Your task to perform on an android device: move an email to a new category in the gmail app Image 0: 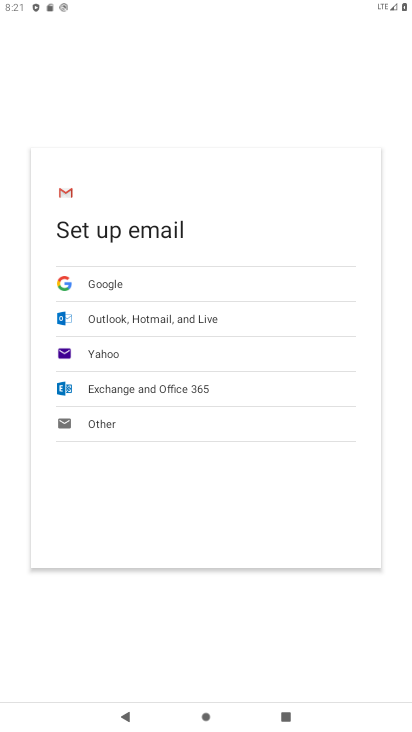
Step 0: press home button
Your task to perform on an android device: move an email to a new category in the gmail app Image 1: 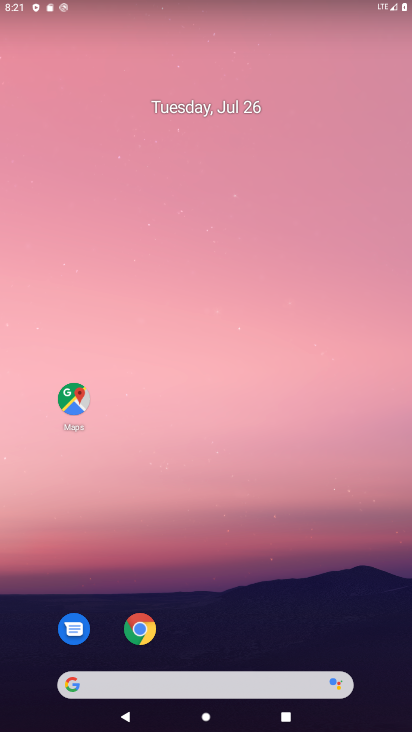
Step 1: drag from (216, 657) to (33, 133)
Your task to perform on an android device: move an email to a new category in the gmail app Image 2: 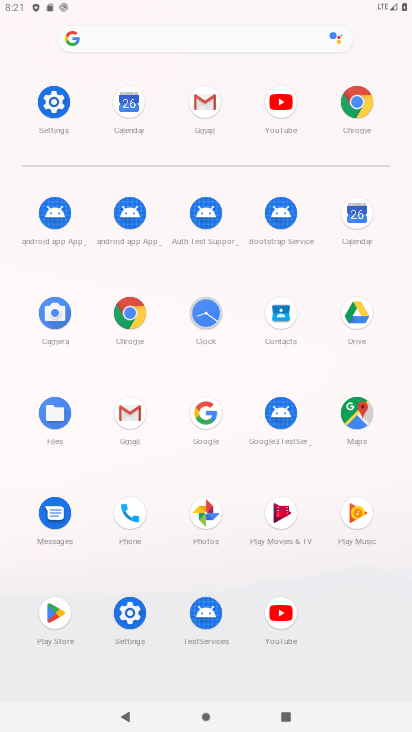
Step 2: click (129, 409)
Your task to perform on an android device: move an email to a new category in the gmail app Image 3: 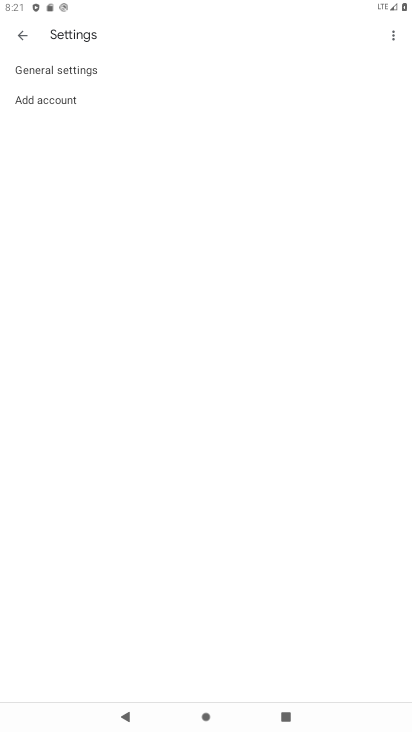
Step 3: click (24, 32)
Your task to perform on an android device: move an email to a new category in the gmail app Image 4: 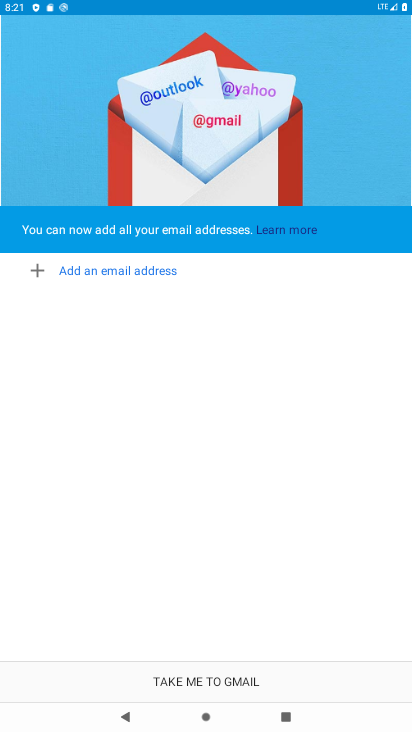
Step 4: task complete